Your task to perform on an android device: uninstall "Nova Launcher" Image 0: 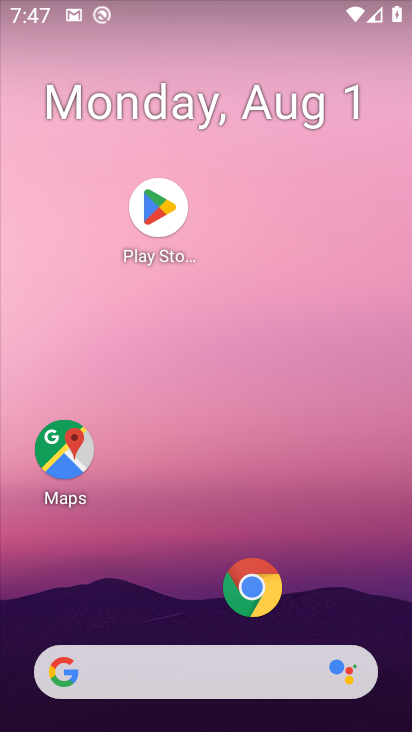
Step 0: drag from (346, 621) to (286, 84)
Your task to perform on an android device: uninstall "Nova Launcher" Image 1: 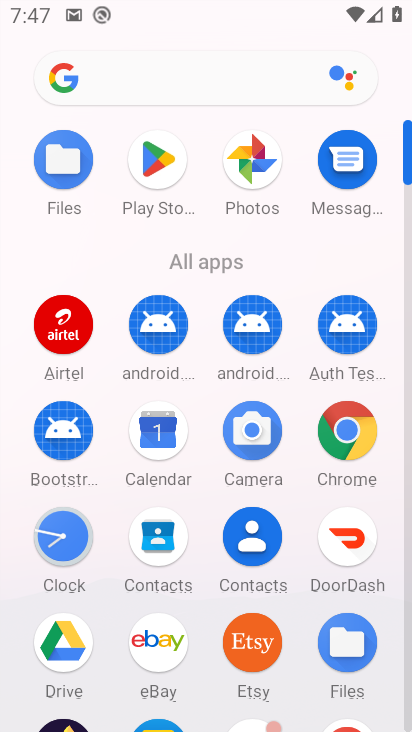
Step 1: click (404, 723)
Your task to perform on an android device: uninstall "Nova Launcher" Image 2: 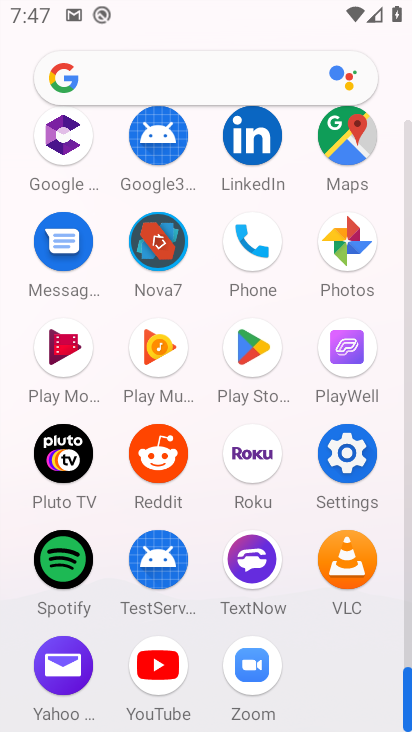
Step 2: click (176, 268)
Your task to perform on an android device: uninstall "Nova Launcher" Image 3: 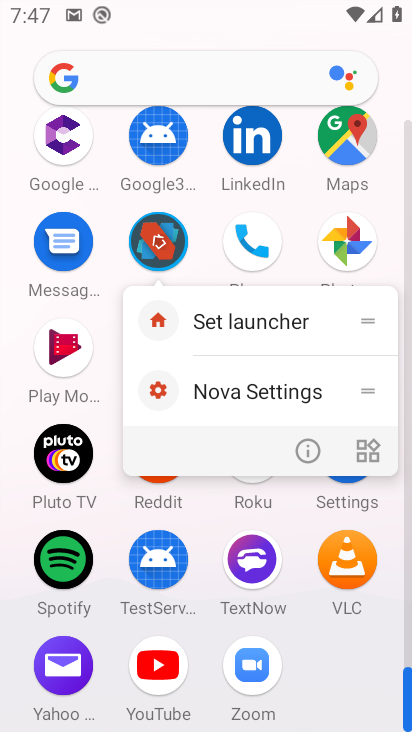
Step 3: click (316, 450)
Your task to perform on an android device: uninstall "Nova Launcher" Image 4: 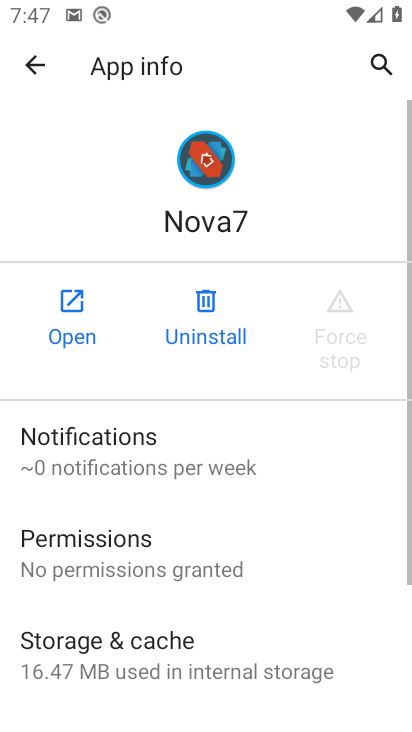
Step 4: click (211, 320)
Your task to perform on an android device: uninstall "Nova Launcher" Image 5: 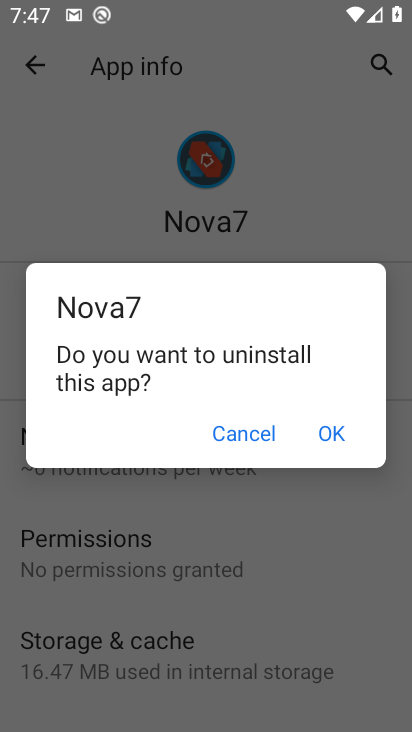
Step 5: click (311, 443)
Your task to perform on an android device: uninstall "Nova Launcher" Image 6: 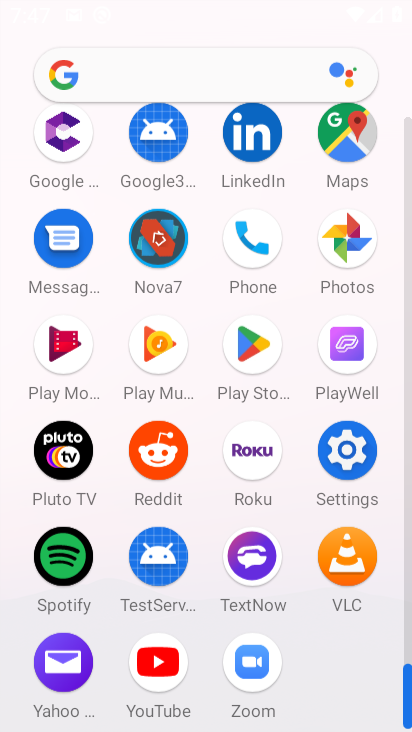
Step 6: task complete